Your task to perform on an android device: What is the recent news? Image 0: 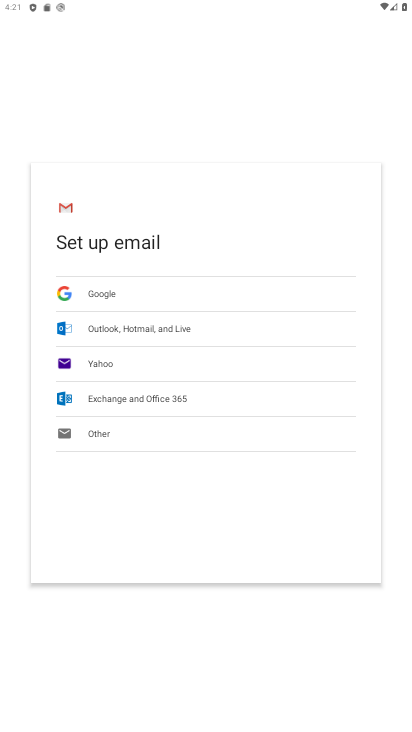
Step 0: press home button
Your task to perform on an android device: What is the recent news? Image 1: 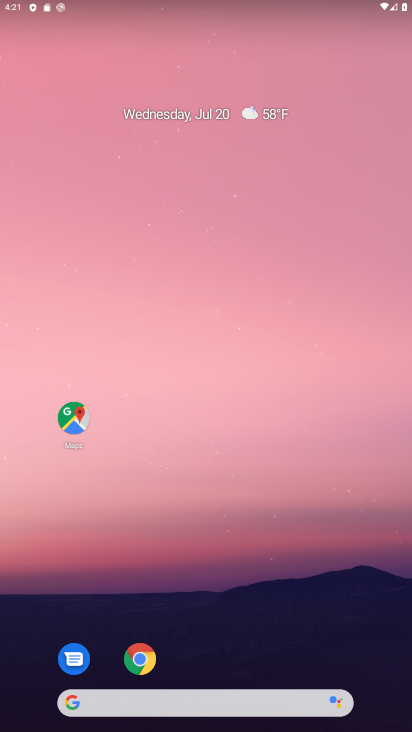
Step 1: drag from (242, 694) to (359, 5)
Your task to perform on an android device: What is the recent news? Image 2: 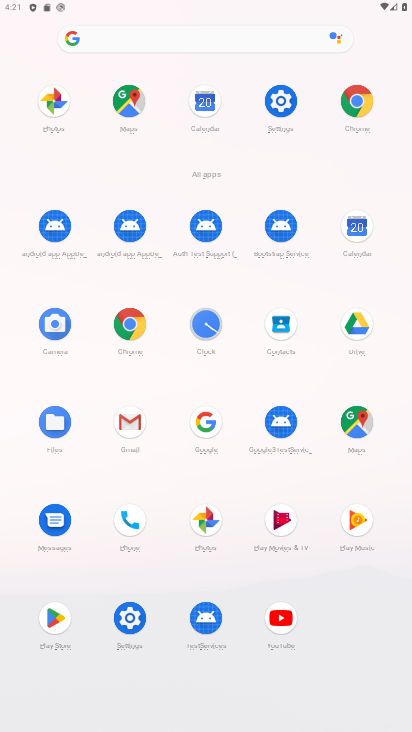
Step 2: click (137, 333)
Your task to perform on an android device: What is the recent news? Image 3: 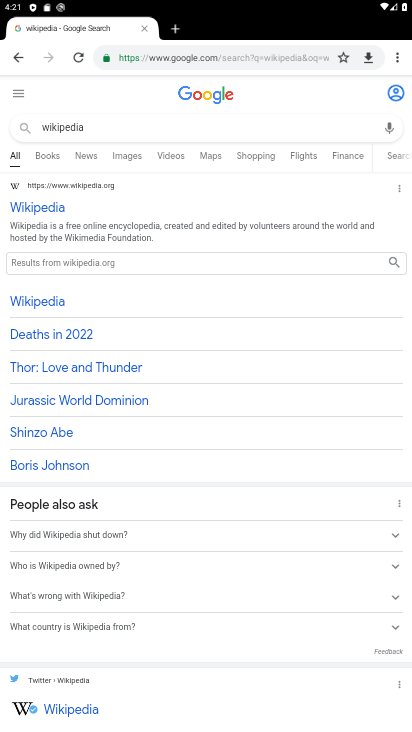
Step 3: click (167, 64)
Your task to perform on an android device: What is the recent news? Image 4: 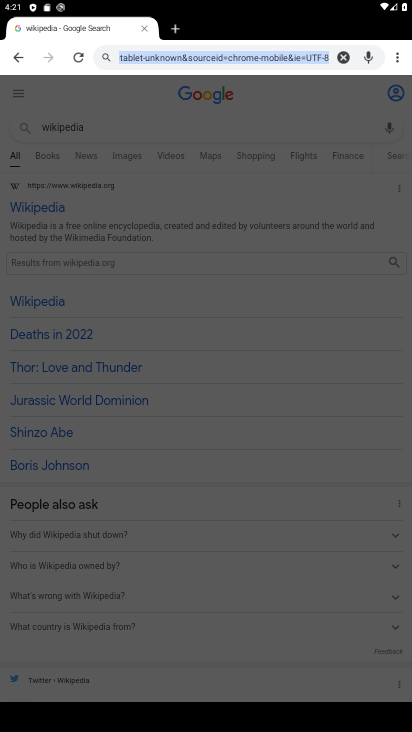
Step 4: type "recent news"
Your task to perform on an android device: What is the recent news? Image 5: 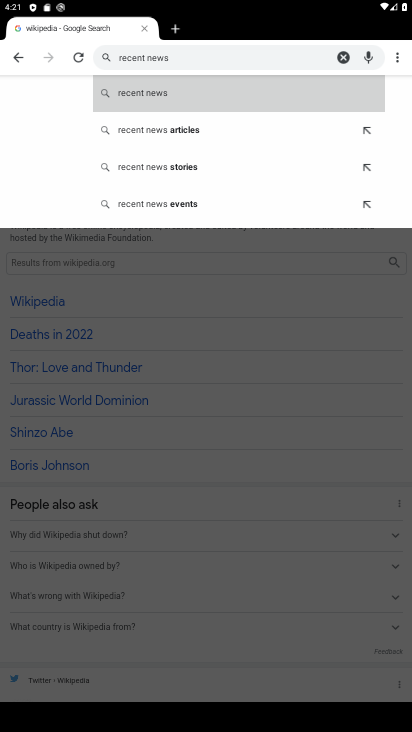
Step 5: click (204, 84)
Your task to perform on an android device: What is the recent news? Image 6: 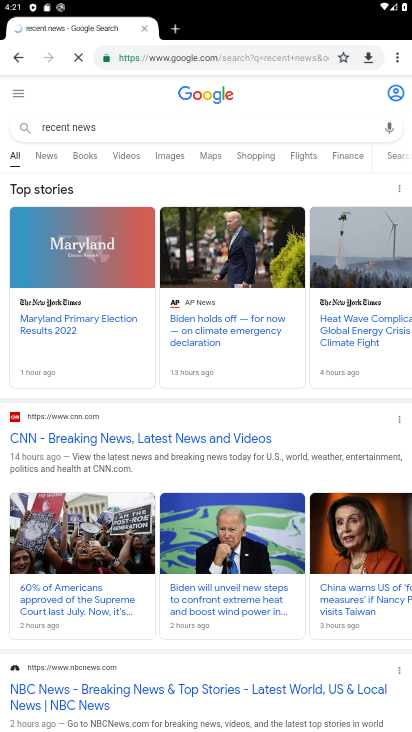
Step 6: task complete